Your task to perform on an android device: open the mobile data screen to see how much data has been used Image 0: 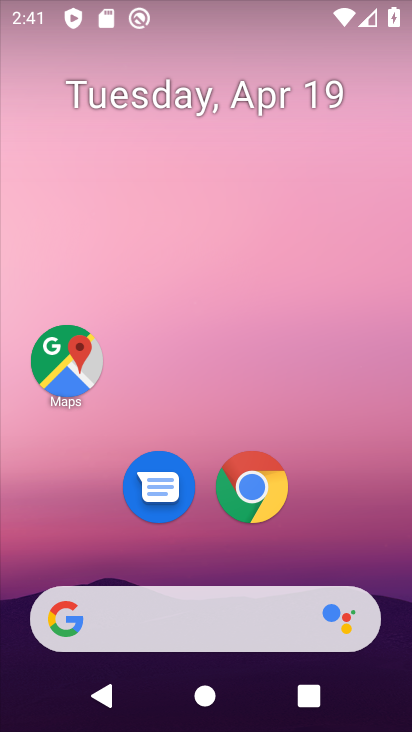
Step 0: drag from (255, 359) to (299, 1)
Your task to perform on an android device: open the mobile data screen to see how much data has been used Image 1: 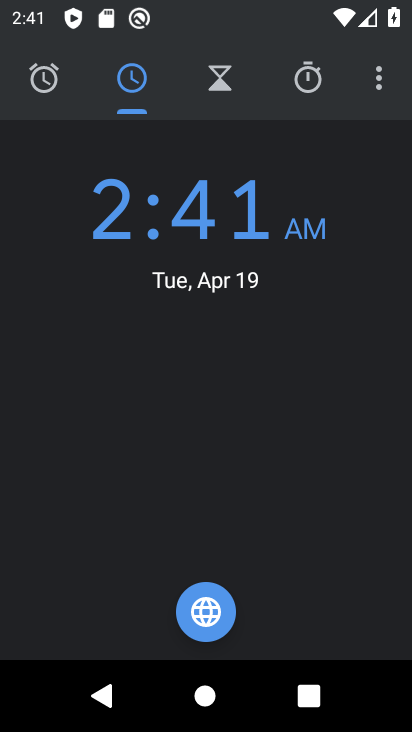
Step 1: press home button
Your task to perform on an android device: open the mobile data screen to see how much data has been used Image 2: 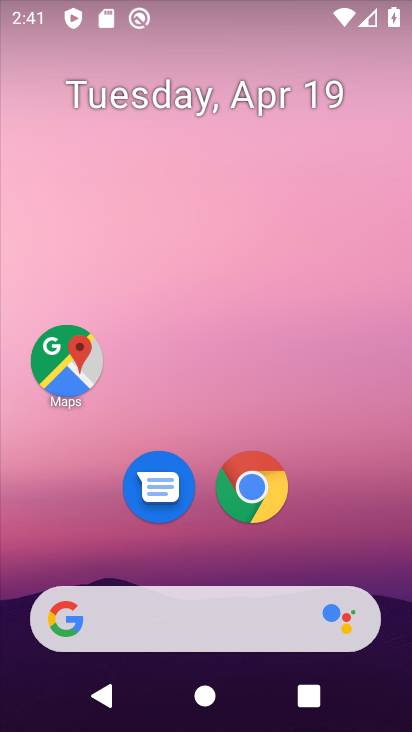
Step 2: drag from (222, 418) to (269, 4)
Your task to perform on an android device: open the mobile data screen to see how much data has been used Image 3: 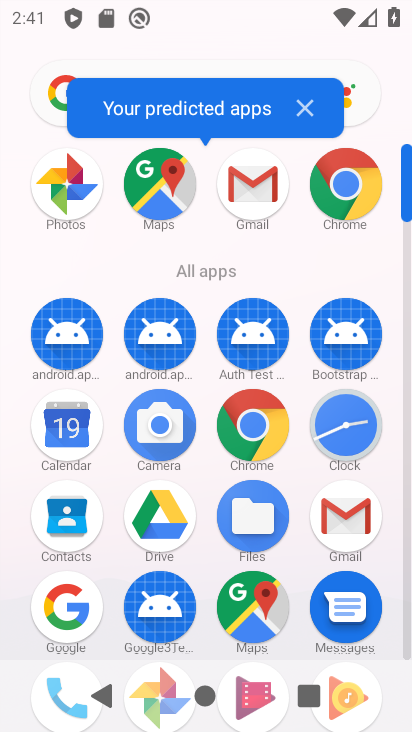
Step 3: drag from (166, 597) to (245, 30)
Your task to perform on an android device: open the mobile data screen to see how much data has been used Image 4: 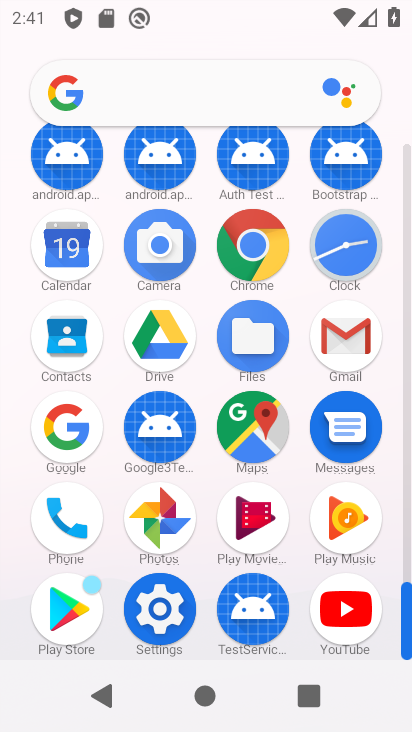
Step 4: click (164, 601)
Your task to perform on an android device: open the mobile data screen to see how much data has been used Image 5: 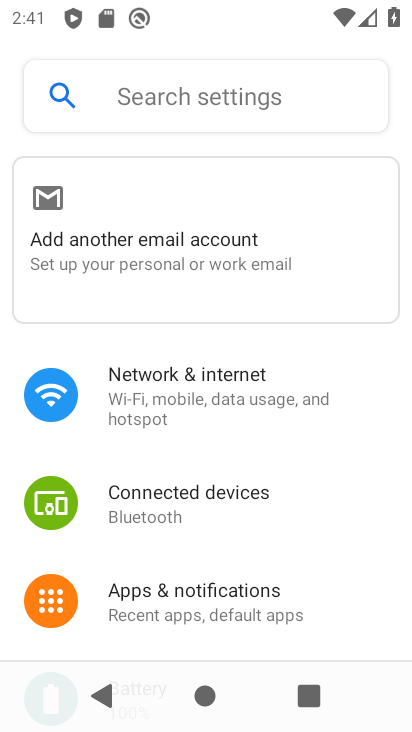
Step 5: drag from (187, 572) to (259, 160)
Your task to perform on an android device: open the mobile data screen to see how much data has been used Image 6: 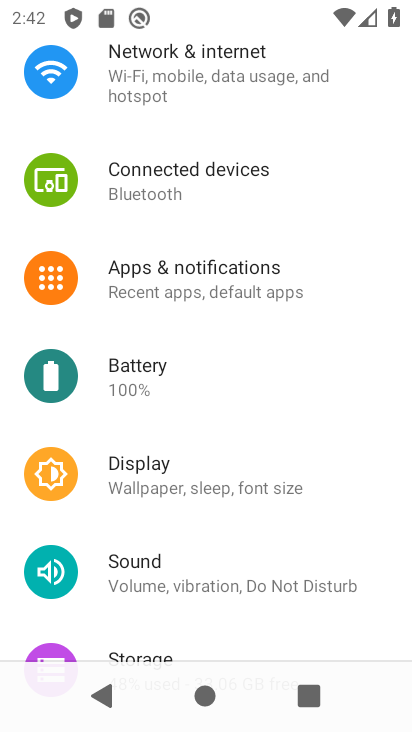
Step 6: click (178, 62)
Your task to perform on an android device: open the mobile data screen to see how much data has been used Image 7: 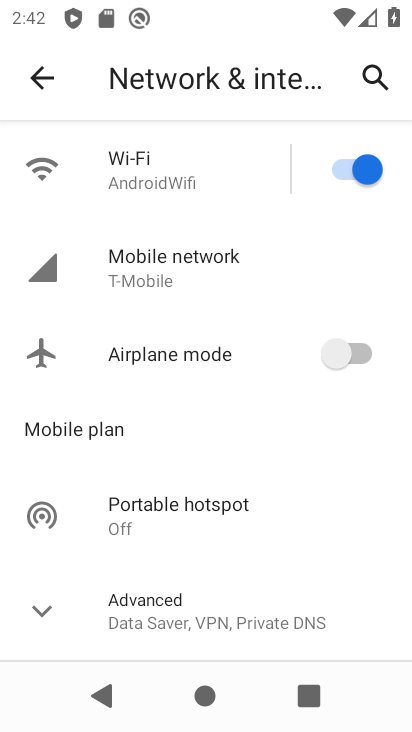
Step 7: click (167, 261)
Your task to perform on an android device: open the mobile data screen to see how much data has been used Image 8: 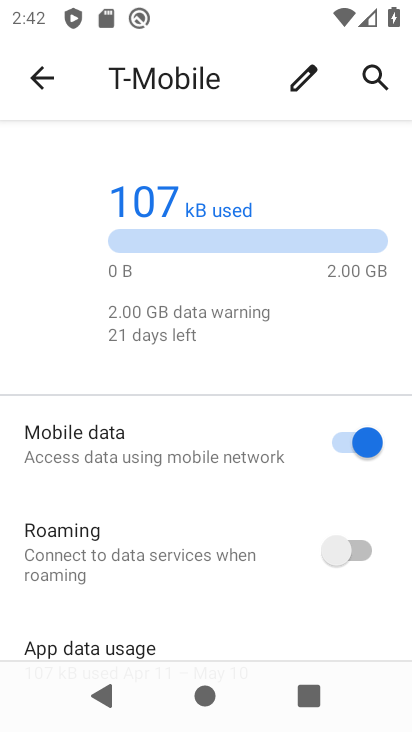
Step 8: drag from (182, 627) to (272, 252)
Your task to perform on an android device: open the mobile data screen to see how much data has been used Image 9: 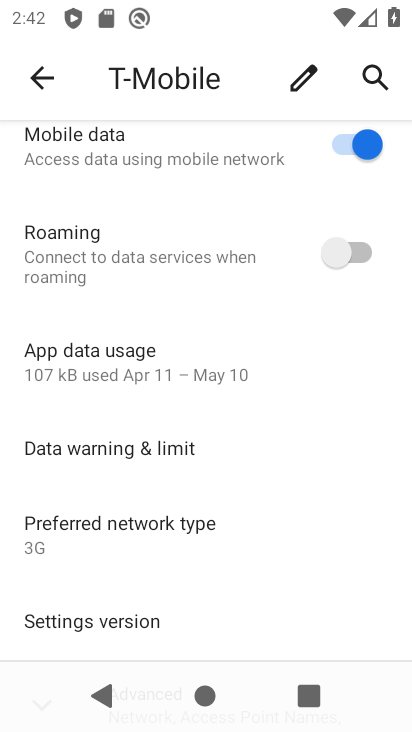
Step 9: click (180, 384)
Your task to perform on an android device: open the mobile data screen to see how much data has been used Image 10: 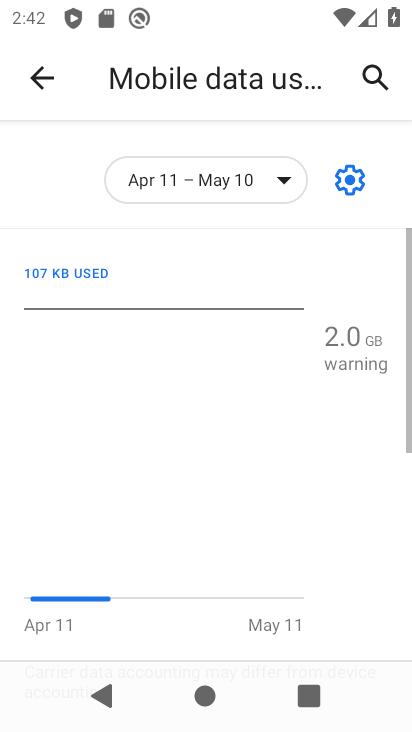
Step 10: task complete